Your task to perform on an android device: search for starred emails in the gmail app Image 0: 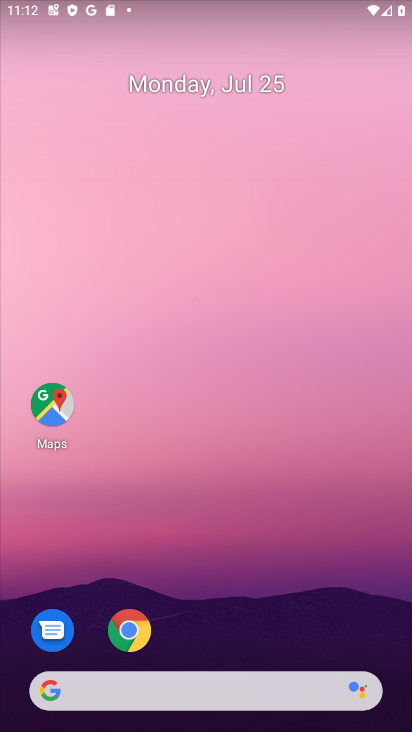
Step 0: drag from (219, 640) to (210, 8)
Your task to perform on an android device: search for starred emails in the gmail app Image 1: 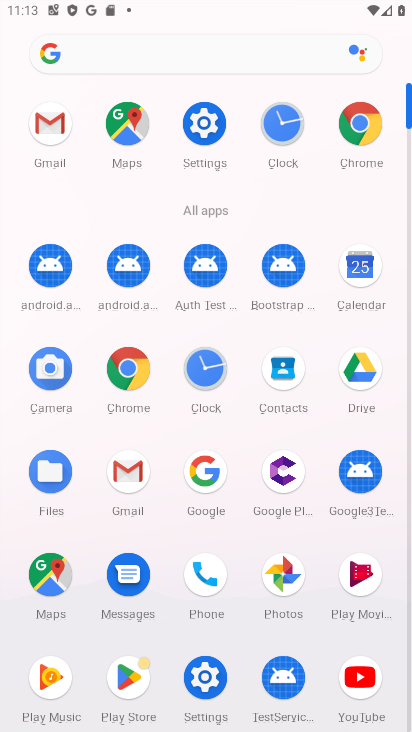
Step 1: click (54, 130)
Your task to perform on an android device: search for starred emails in the gmail app Image 2: 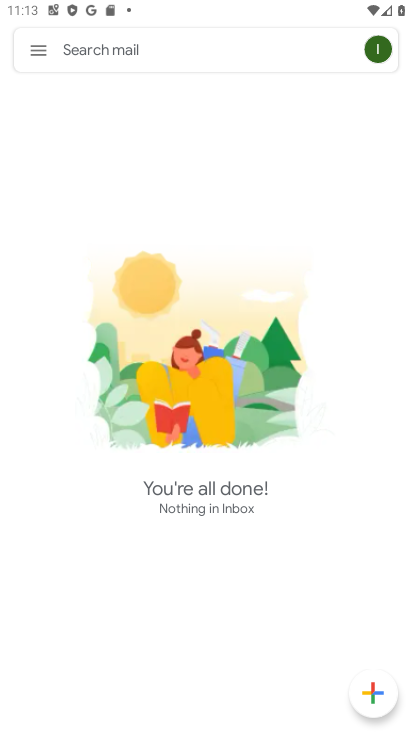
Step 2: click (34, 48)
Your task to perform on an android device: search for starred emails in the gmail app Image 3: 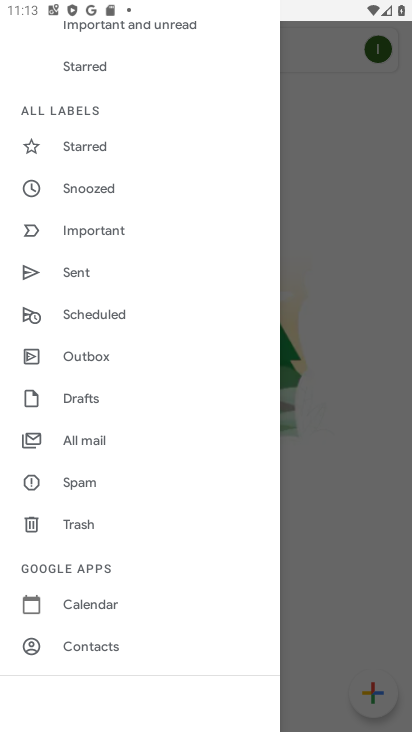
Step 3: click (70, 147)
Your task to perform on an android device: search for starred emails in the gmail app Image 4: 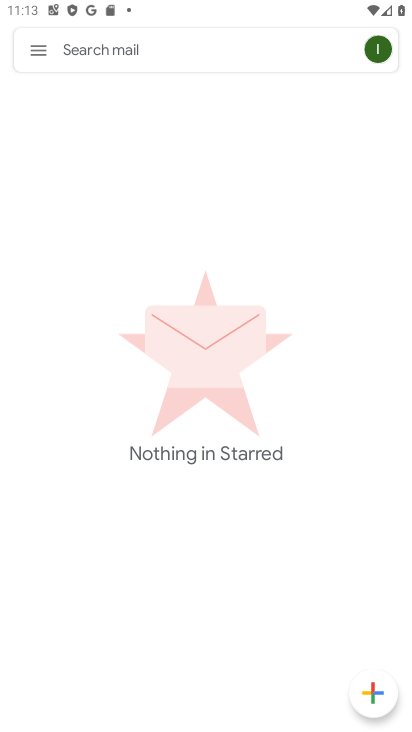
Step 4: task complete